Your task to perform on an android device: What's on my calendar today? Image 0: 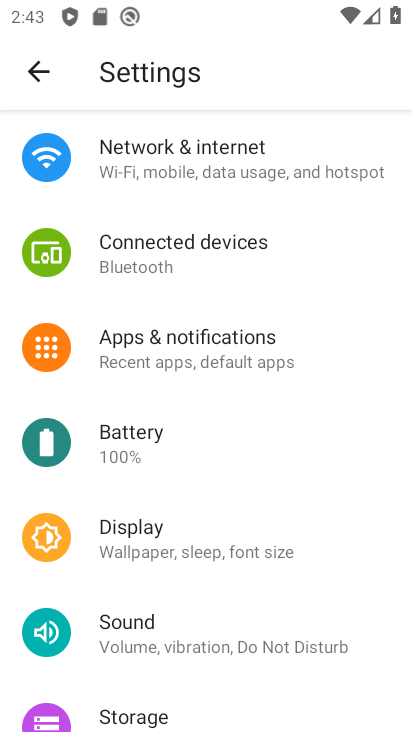
Step 0: press home button
Your task to perform on an android device: What's on my calendar today? Image 1: 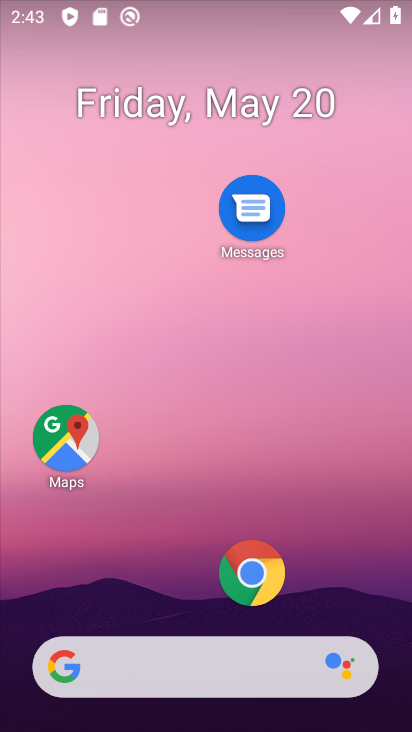
Step 1: click (317, 104)
Your task to perform on an android device: What's on my calendar today? Image 2: 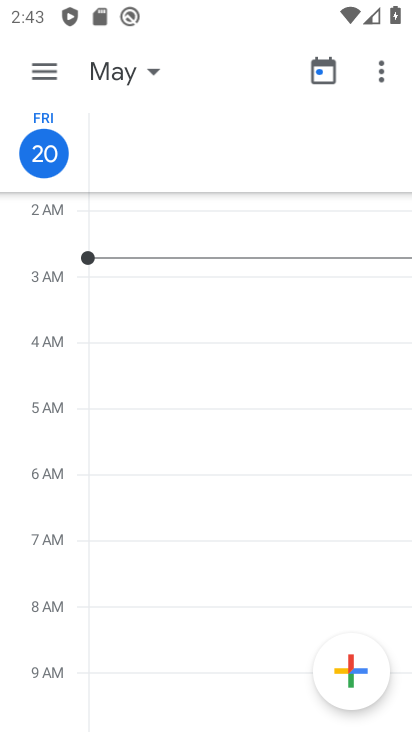
Step 2: click (115, 72)
Your task to perform on an android device: What's on my calendar today? Image 3: 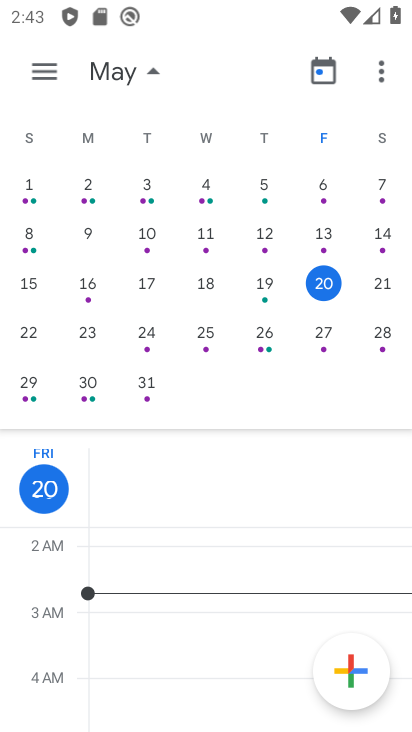
Step 3: task complete